Your task to perform on an android device: check out phone information Image 0: 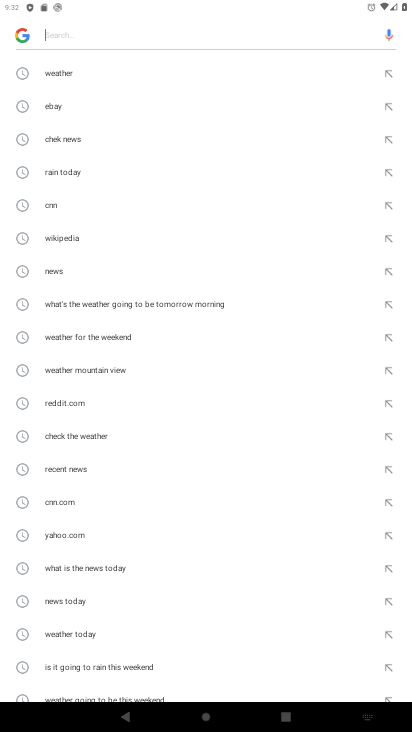
Step 0: press home button
Your task to perform on an android device: check out phone information Image 1: 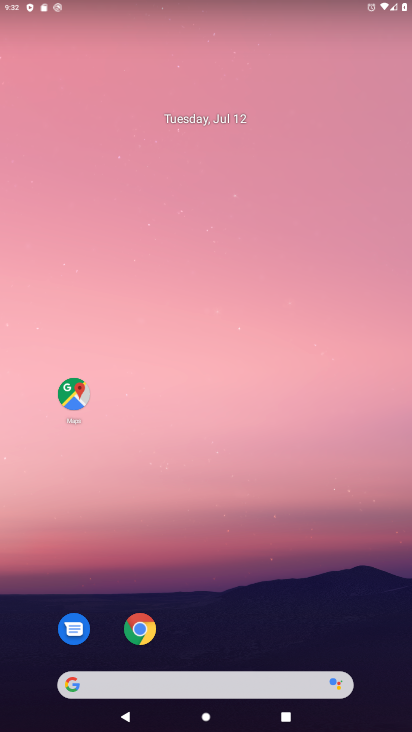
Step 1: drag from (387, 630) to (335, 128)
Your task to perform on an android device: check out phone information Image 2: 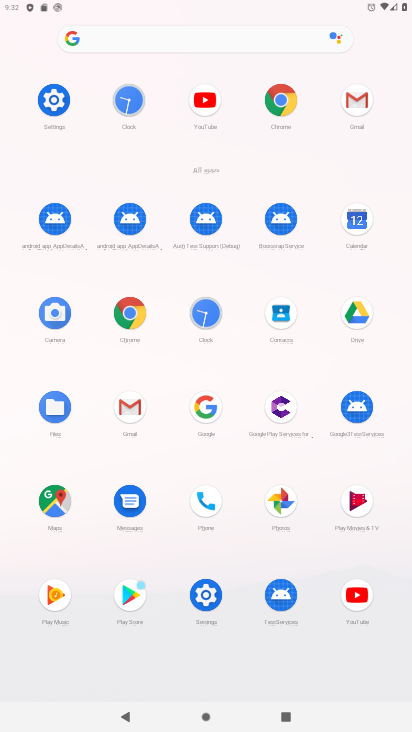
Step 2: click (203, 595)
Your task to perform on an android device: check out phone information Image 3: 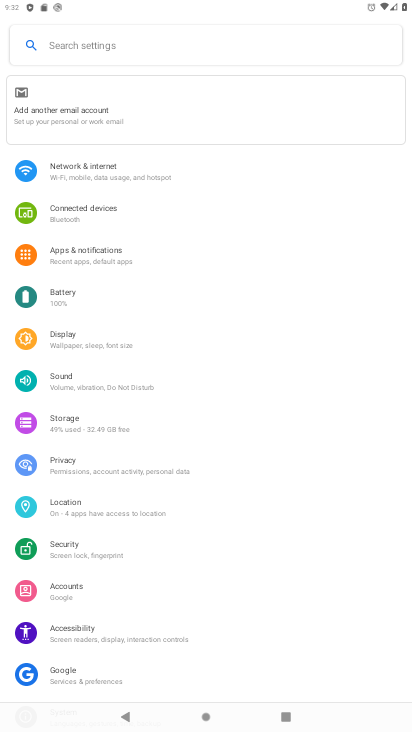
Step 3: drag from (191, 627) to (201, 244)
Your task to perform on an android device: check out phone information Image 4: 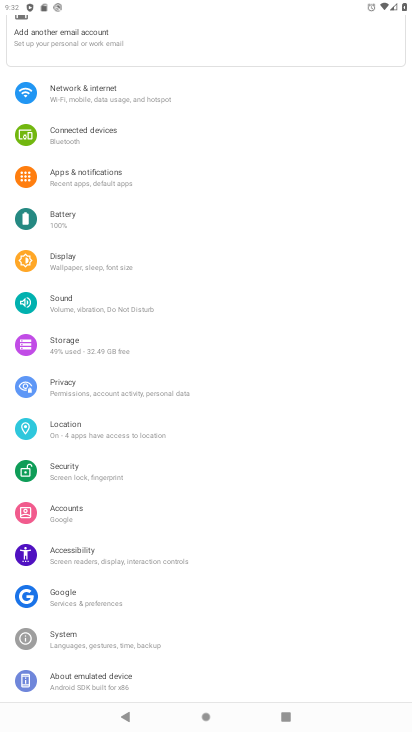
Step 4: click (58, 680)
Your task to perform on an android device: check out phone information Image 5: 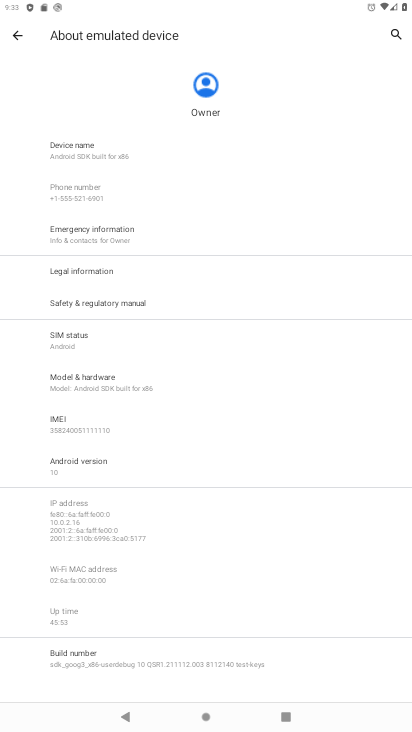
Step 5: click (277, 553)
Your task to perform on an android device: check out phone information Image 6: 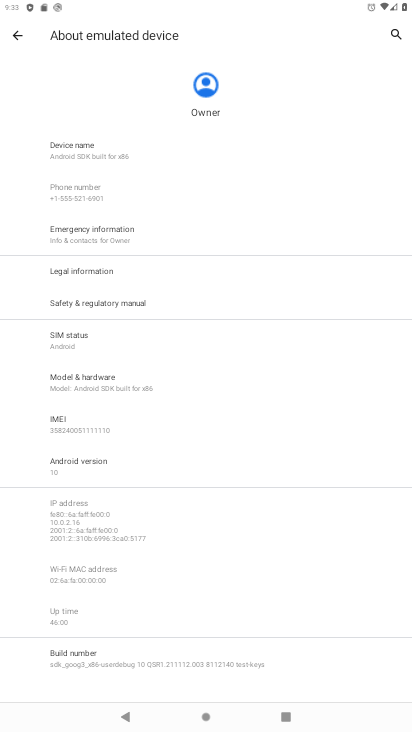
Step 6: task complete